Your task to perform on an android device: Add razer huntsman to the cart on ebay, then select checkout. Image 0: 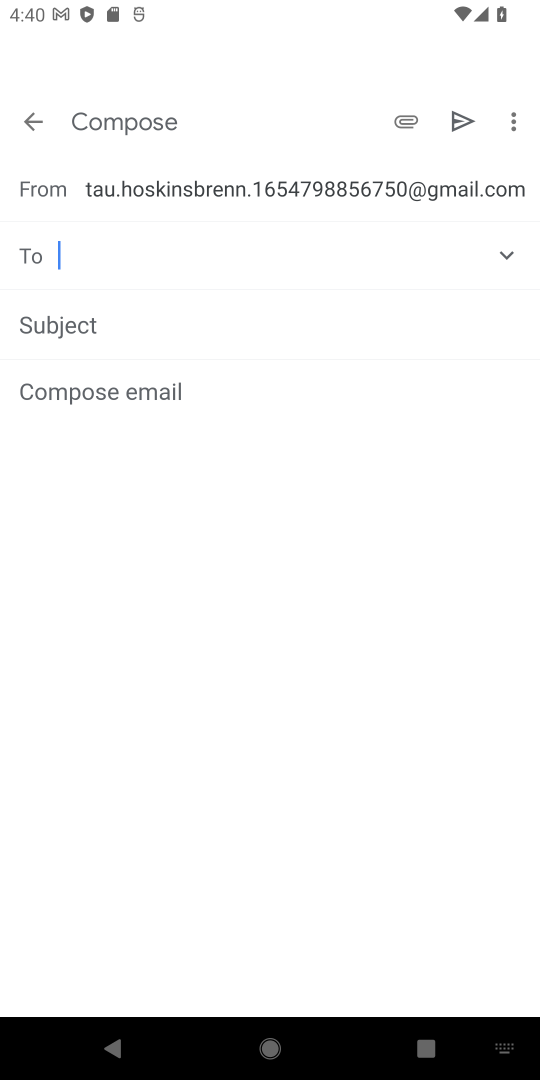
Step 0: press home button
Your task to perform on an android device: Add razer huntsman to the cart on ebay, then select checkout. Image 1: 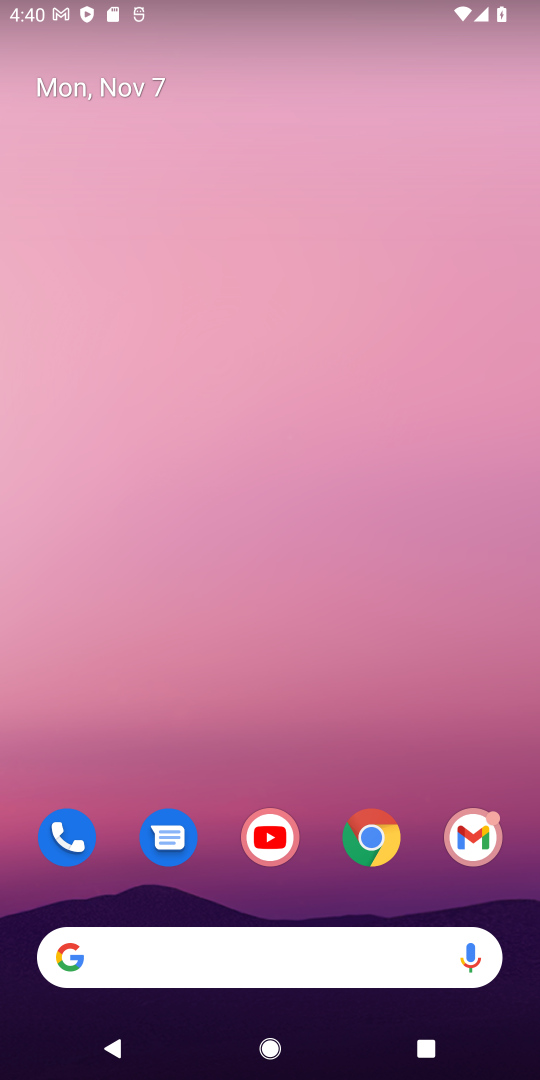
Step 1: click (368, 836)
Your task to perform on an android device: Add razer huntsman to the cart on ebay, then select checkout. Image 2: 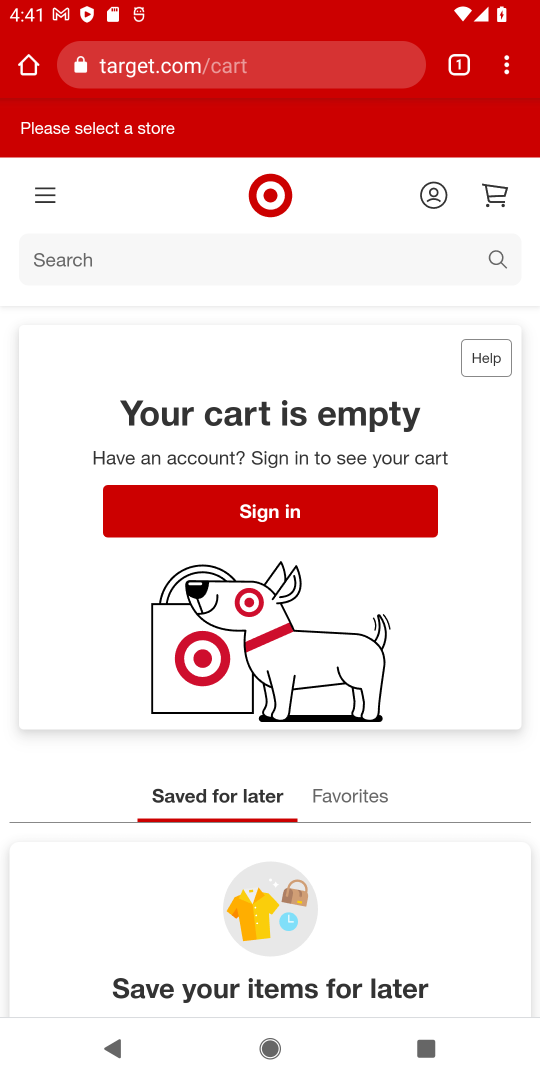
Step 2: click (262, 71)
Your task to perform on an android device: Add razer huntsman to the cart on ebay, then select checkout. Image 3: 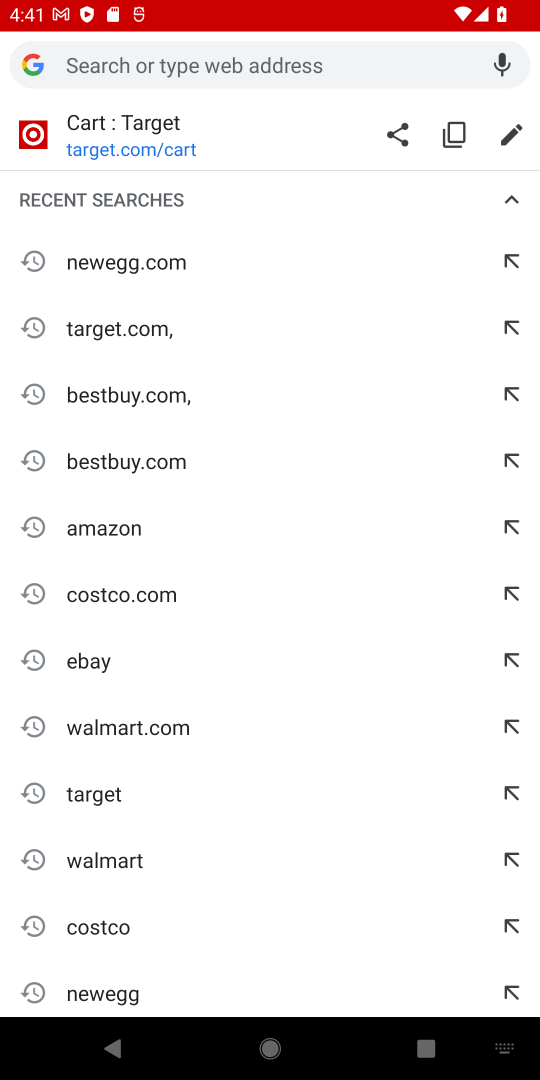
Step 3: type "ebay.com"
Your task to perform on an android device: Add razer huntsman to the cart on ebay, then select checkout. Image 4: 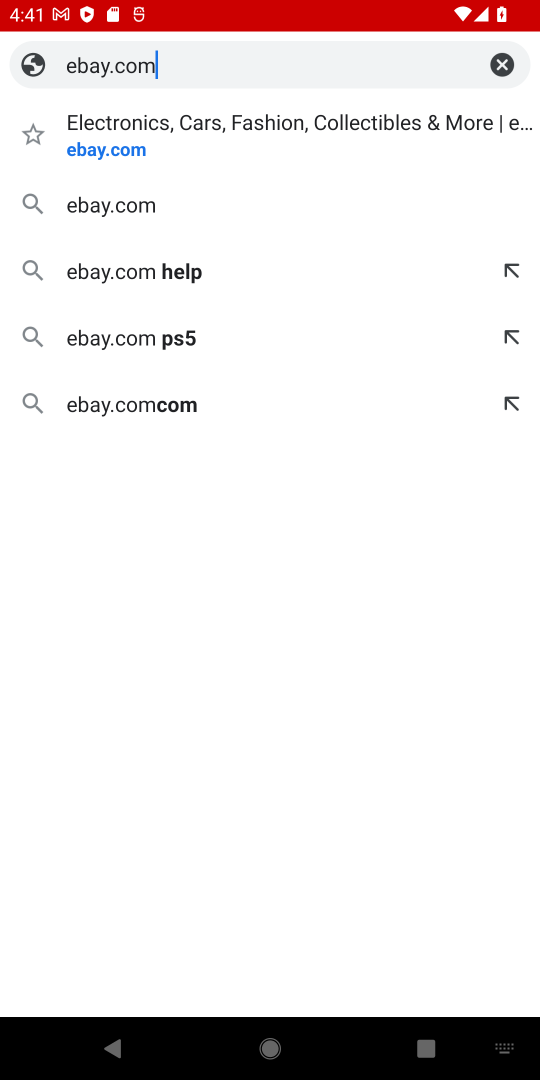
Step 4: click (182, 136)
Your task to perform on an android device: Add razer huntsman to the cart on ebay, then select checkout. Image 5: 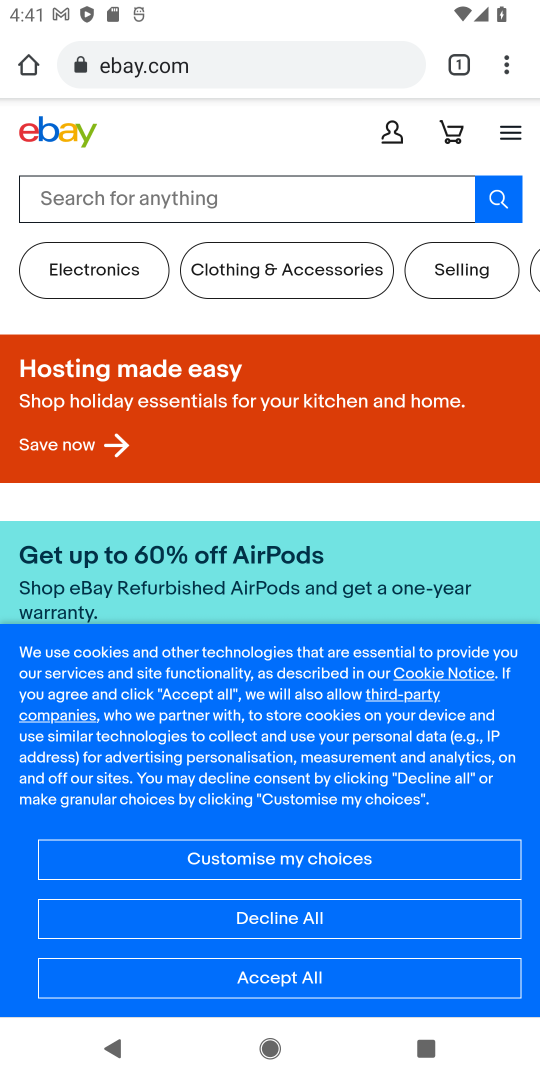
Step 5: click (332, 208)
Your task to perform on an android device: Add razer huntsman to the cart on ebay, then select checkout. Image 6: 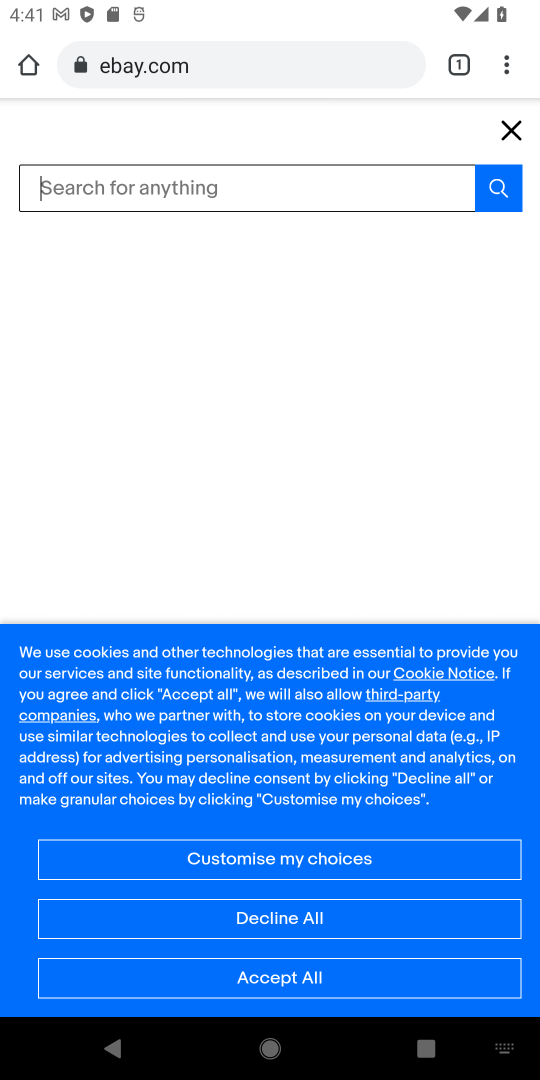
Step 6: type "razer hunstman"
Your task to perform on an android device: Add razer huntsman to the cart on ebay, then select checkout. Image 7: 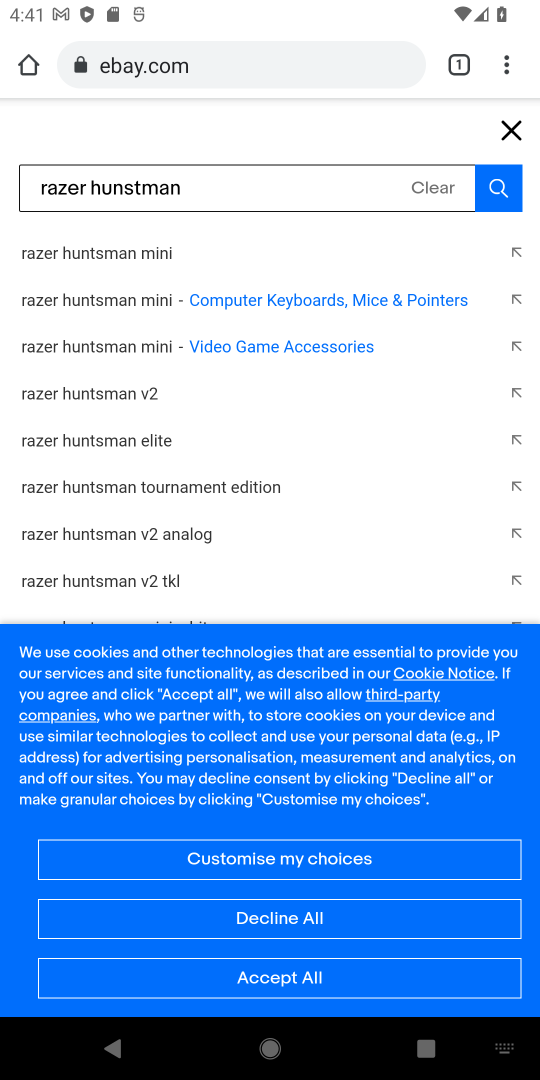
Step 7: press enter
Your task to perform on an android device: Add razer huntsman to the cart on ebay, then select checkout. Image 8: 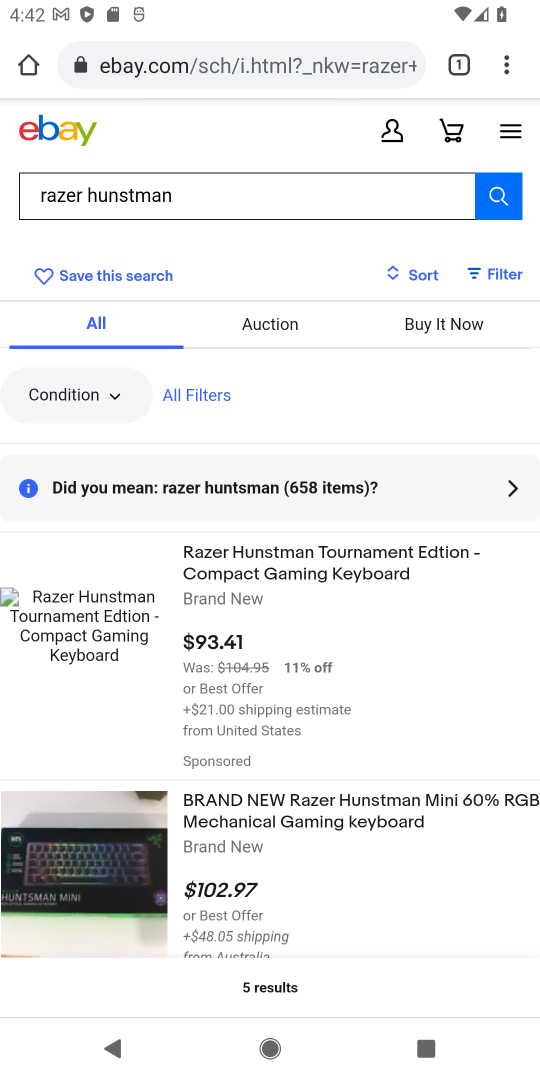
Step 8: click (190, 581)
Your task to perform on an android device: Add razer huntsman to the cart on ebay, then select checkout. Image 9: 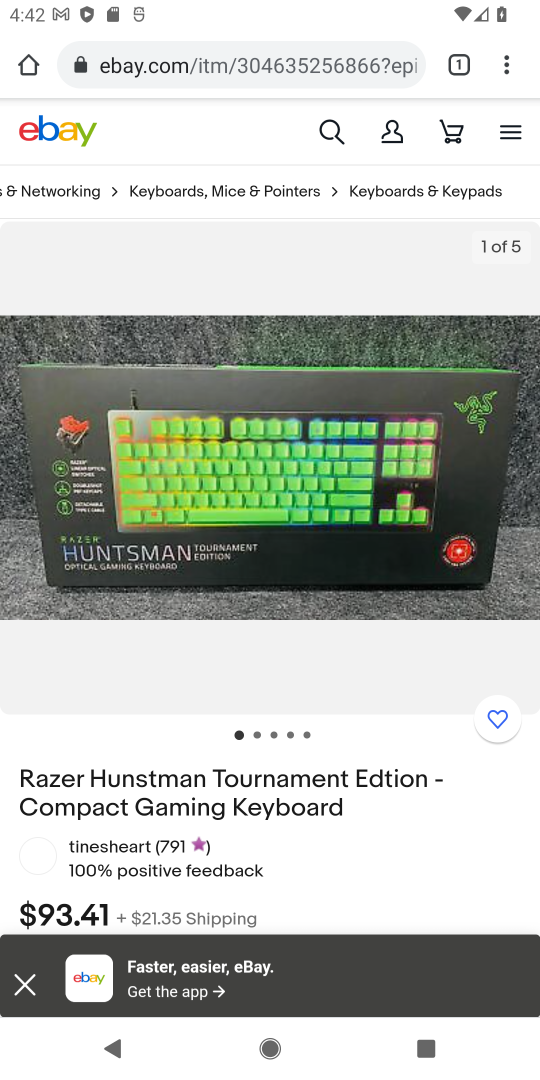
Step 9: drag from (295, 865) to (212, 10)
Your task to perform on an android device: Add razer huntsman to the cart on ebay, then select checkout. Image 10: 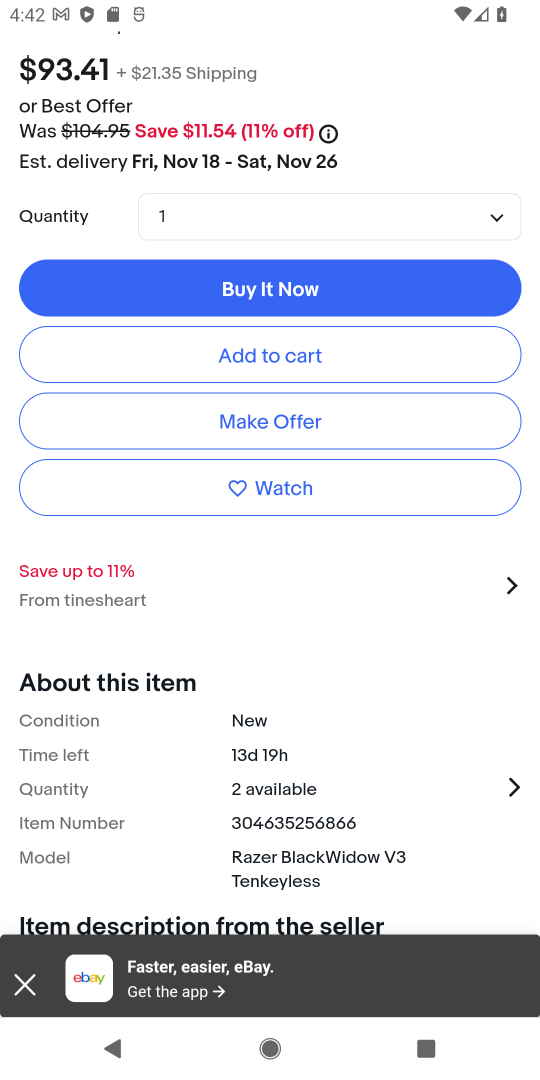
Step 10: click (308, 353)
Your task to perform on an android device: Add razer huntsman to the cart on ebay, then select checkout. Image 11: 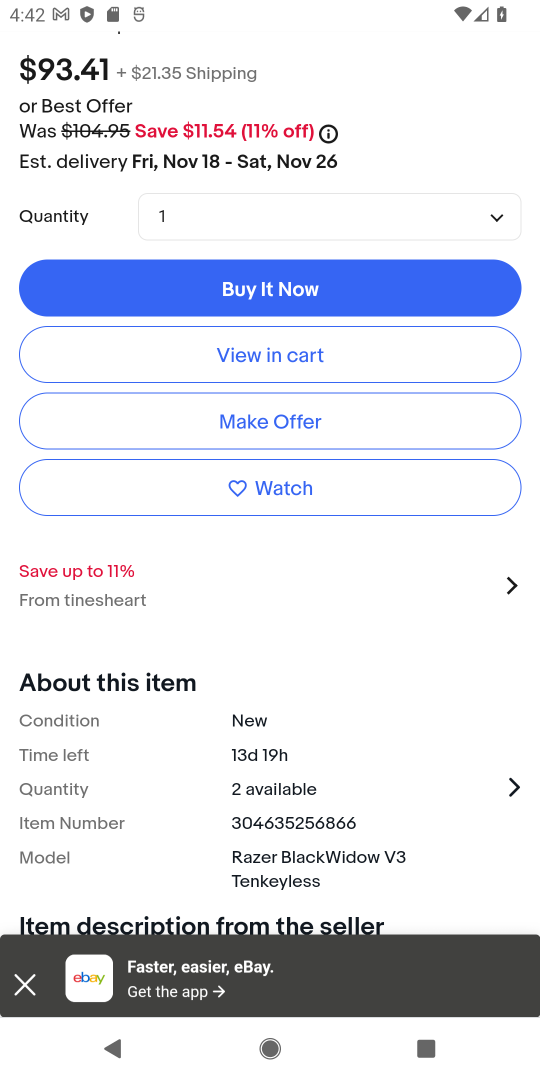
Step 11: drag from (487, 128) to (457, 650)
Your task to perform on an android device: Add razer huntsman to the cart on ebay, then select checkout. Image 12: 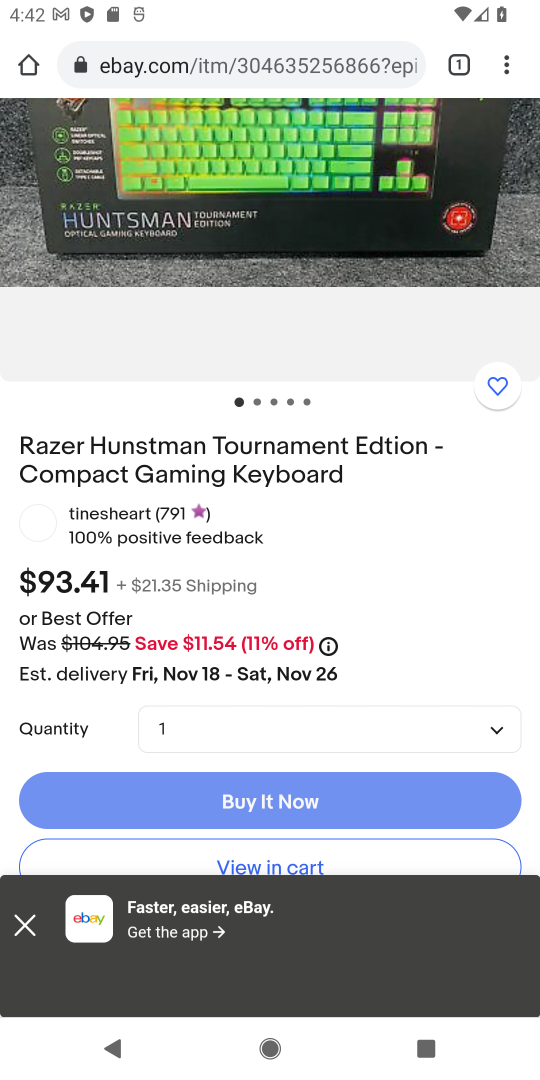
Step 12: drag from (427, 661) to (427, 765)
Your task to perform on an android device: Add razer huntsman to the cart on ebay, then select checkout. Image 13: 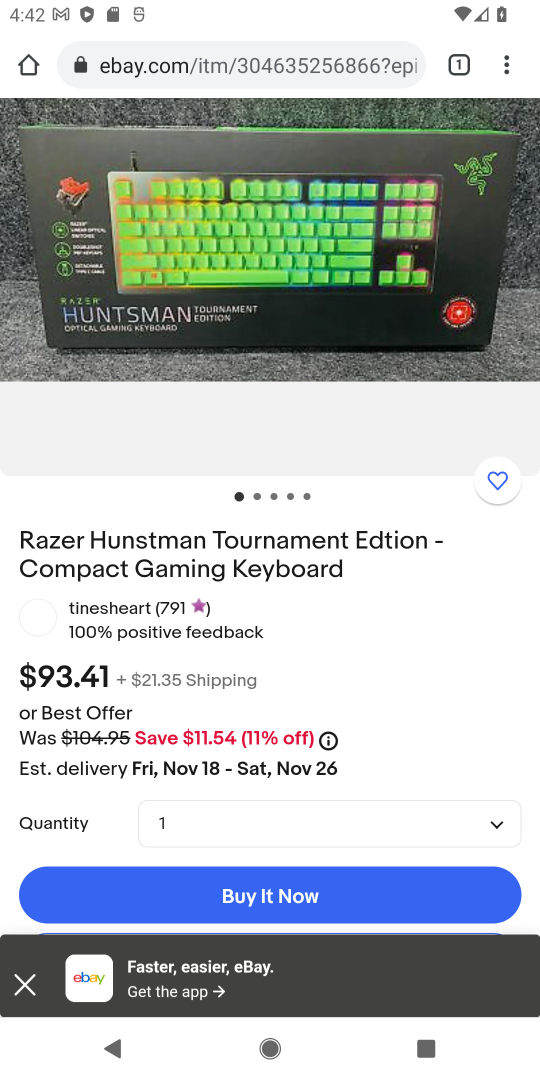
Step 13: drag from (391, 396) to (272, 1049)
Your task to perform on an android device: Add razer huntsman to the cart on ebay, then select checkout. Image 14: 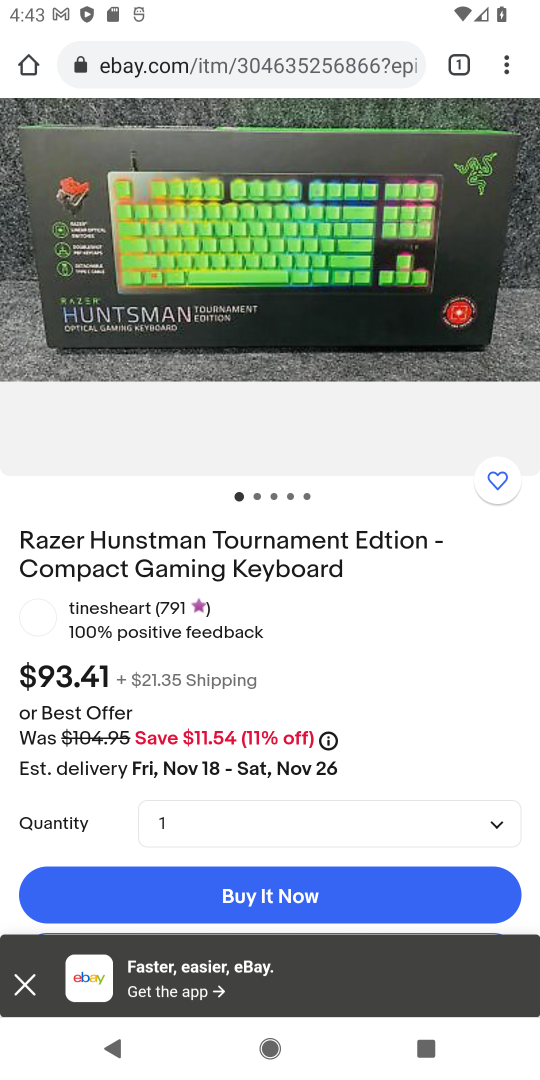
Step 14: drag from (384, 227) to (258, 840)
Your task to perform on an android device: Add razer huntsman to the cart on ebay, then select checkout. Image 15: 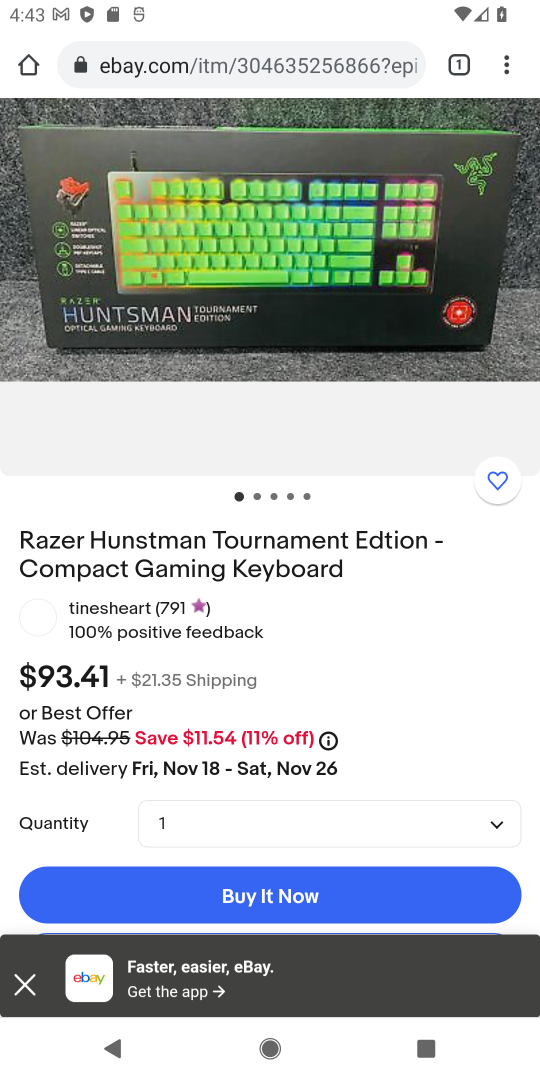
Step 15: drag from (379, 619) to (364, 1036)
Your task to perform on an android device: Add razer huntsman to the cart on ebay, then select checkout. Image 16: 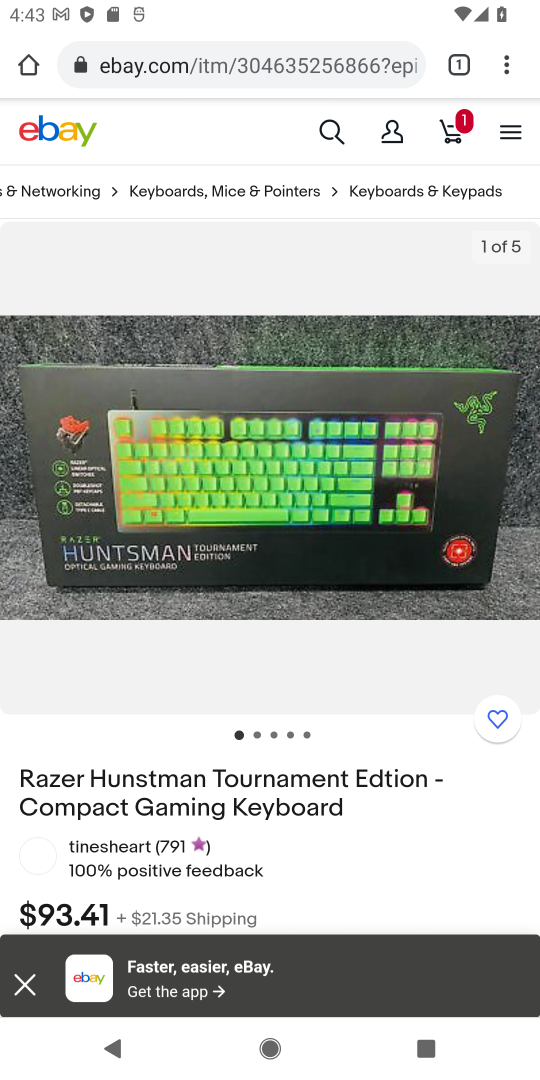
Step 16: click (452, 134)
Your task to perform on an android device: Add razer huntsman to the cart on ebay, then select checkout. Image 17: 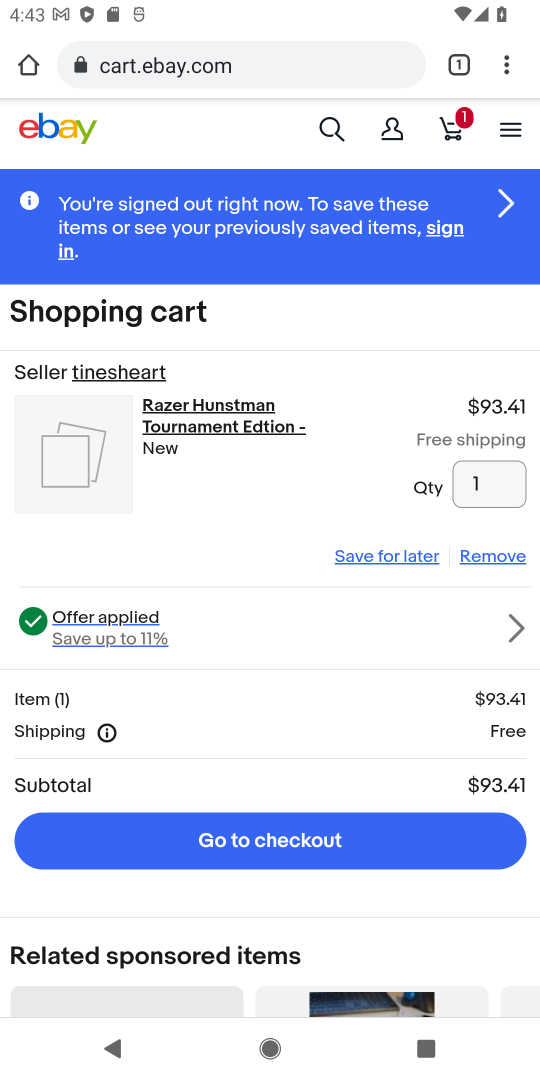
Step 17: click (392, 839)
Your task to perform on an android device: Add razer huntsman to the cart on ebay, then select checkout. Image 18: 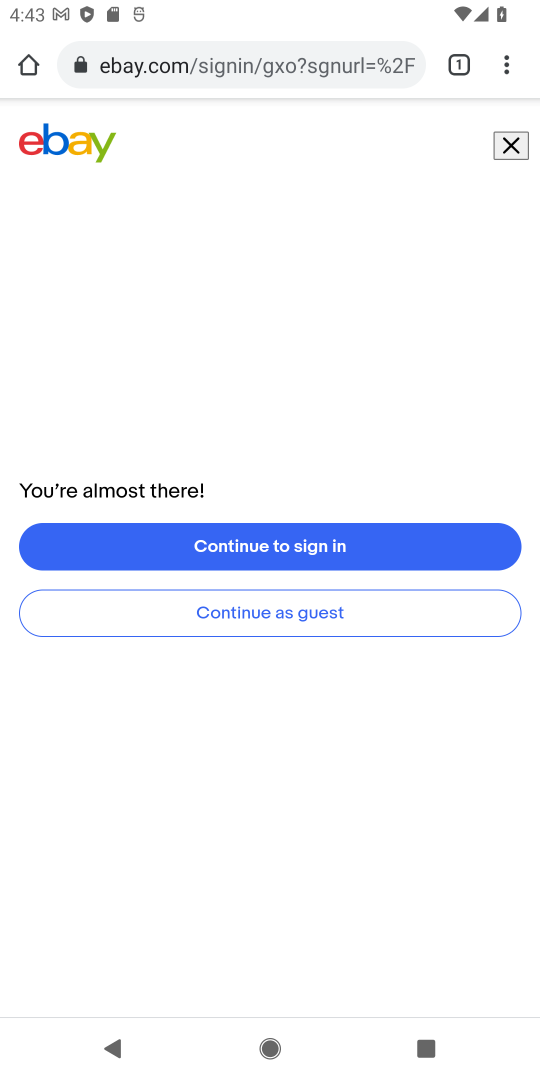
Step 18: task complete